Your task to perform on an android device: Open Youtube and go to "Your channel" Image 0: 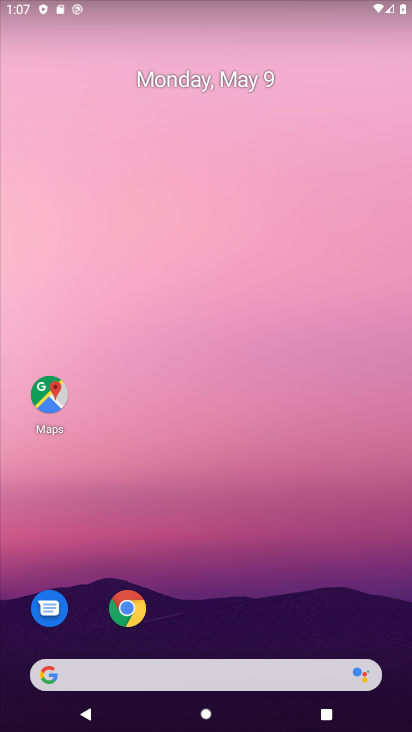
Step 0: drag from (194, 586) to (271, 0)
Your task to perform on an android device: Open Youtube and go to "Your channel" Image 1: 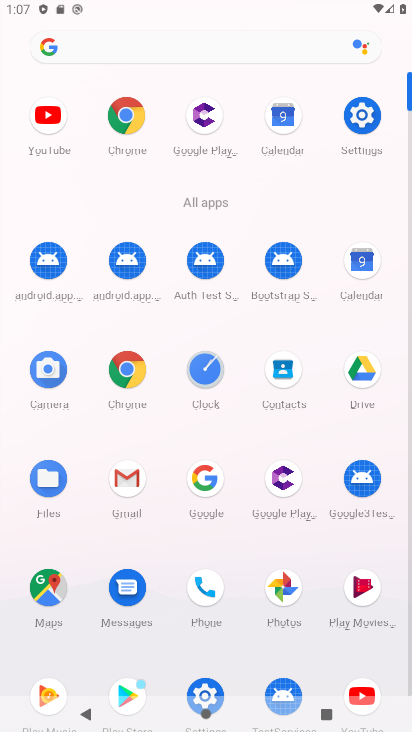
Step 1: click (47, 106)
Your task to perform on an android device: Open Youtube and go to "Your channel" Image 2: 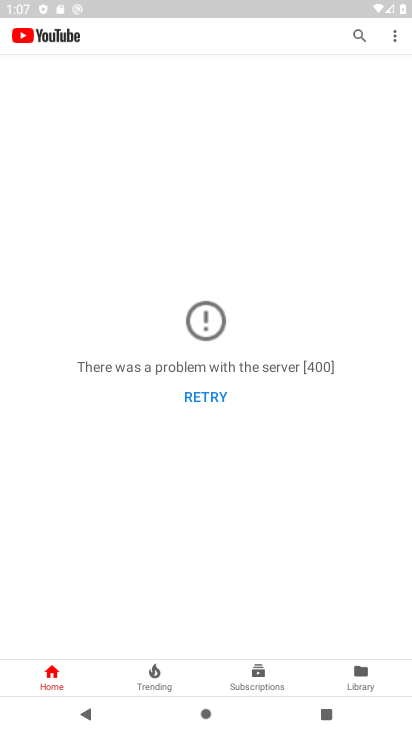
Step 2: task complete